Your task to perform on an android device: Go to Amazon Image 0: 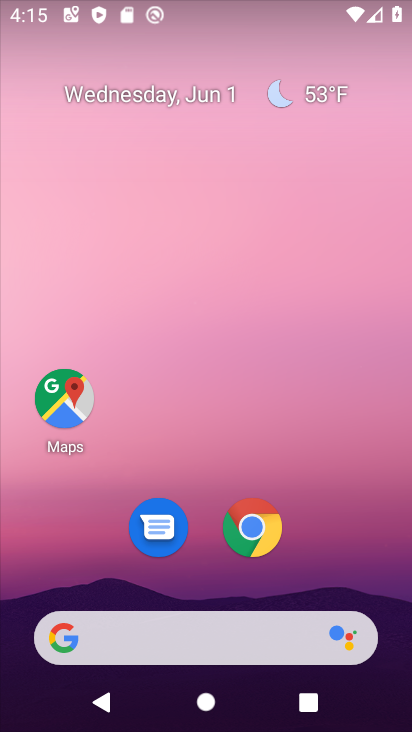
Step 0: drag from (342, 574) to (382, 73)
Your task to perform on an android device: Go to Amazon Image 1: 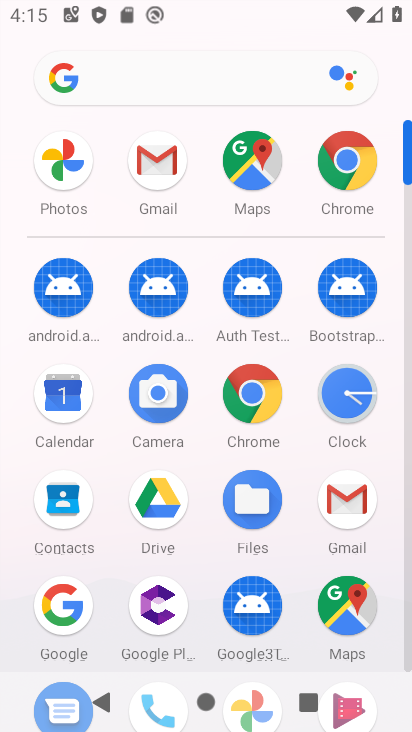
Step 1: click (250, 394)
Your task to perform on an android device: Go to Amazon Image 2: 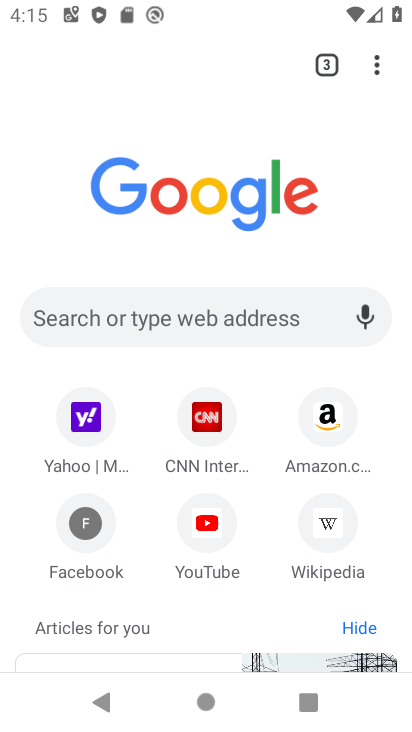
Step 2: click (324, 407)
Your task to perform on an android device: Go to Amazon Image 3: 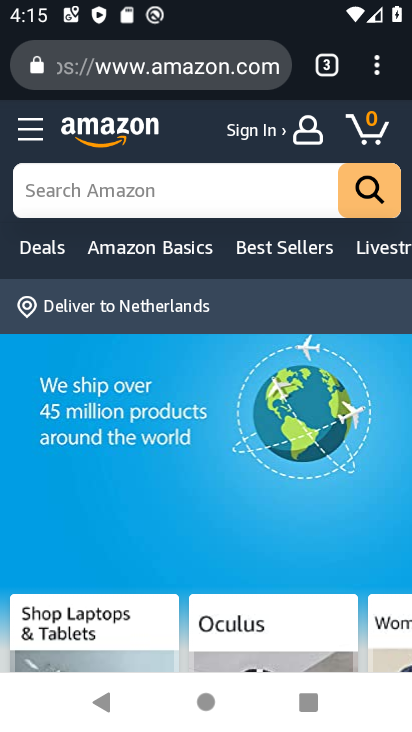
Step 3: task complete